Your task to perform on an android device: Go to internet settings Image 0: 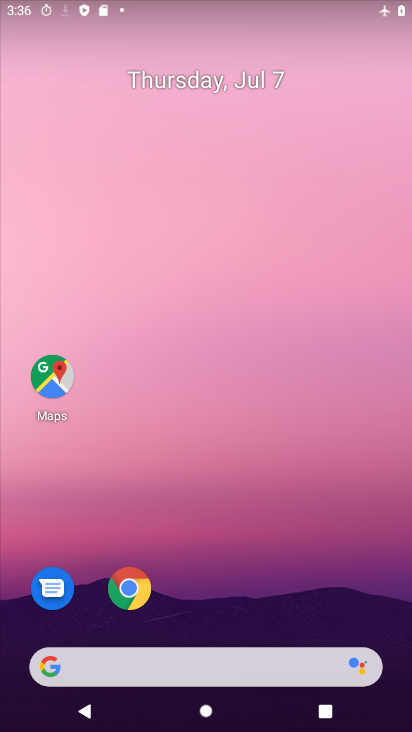
Step 0: drag from (260, 714) to (217, 118)
Your task to perform on an android device: Go to internet settings Image 1: 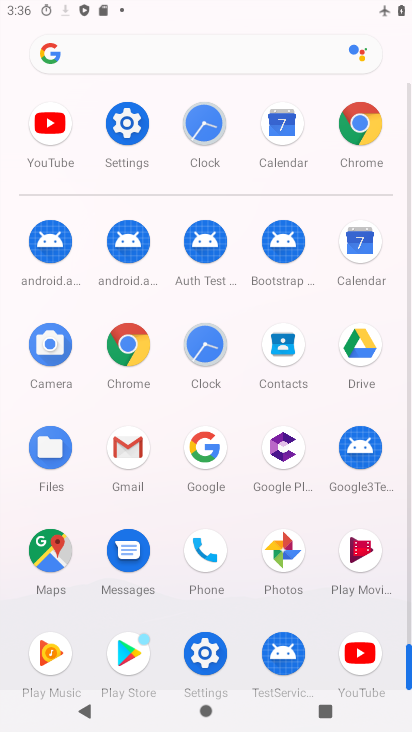
Step 1: click (145, 144)
Your task to perform on an android device: Go to internet settings Image 2: 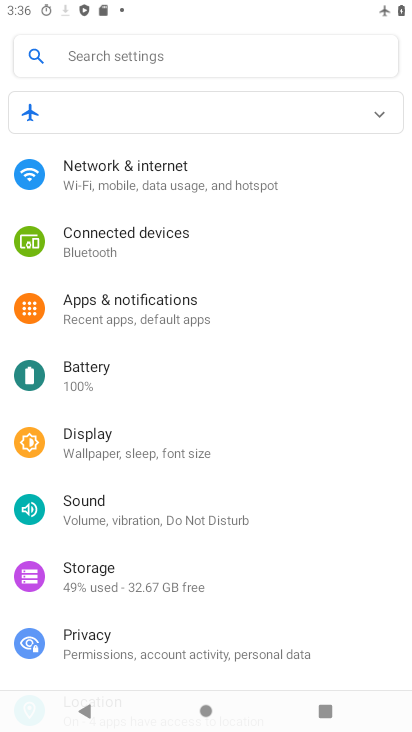
Step 2: click (148, 175)
Your task to perform on an android device: Go to internet settings Image 3: 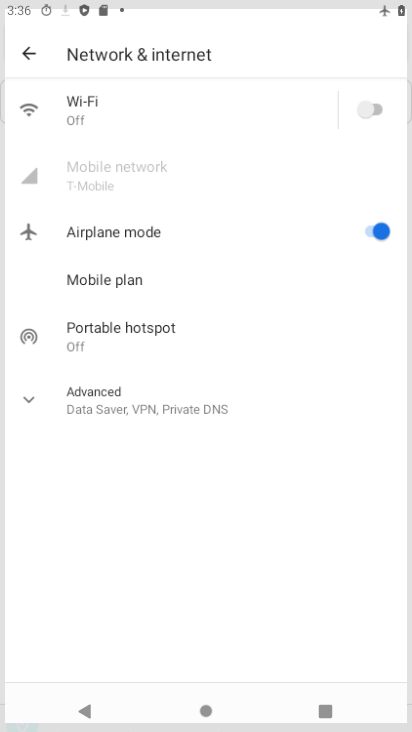
Step 3: click (148, 175)
Your task to perform on an android device: Go to internet settings Image 4: 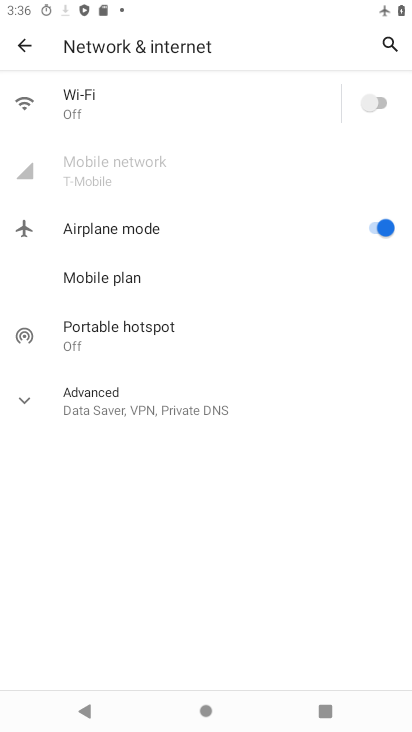
Step 4: click (148, 175)
Your task to perform on an android device: Go to internet settings Image 5: 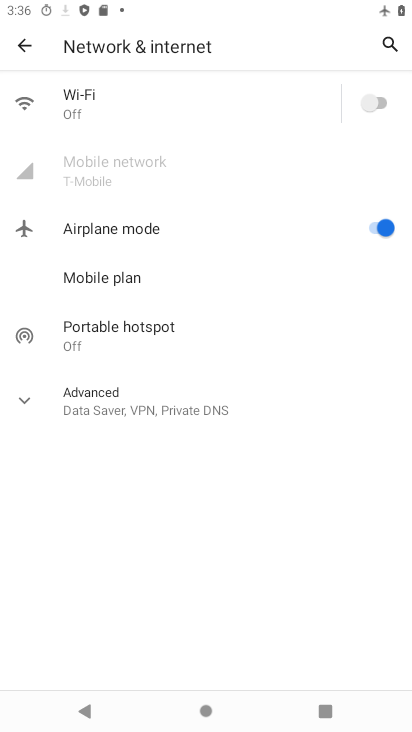
Step 5: click (155, 180)
Your task to perform on an android device: Go to internet settings Image 6: 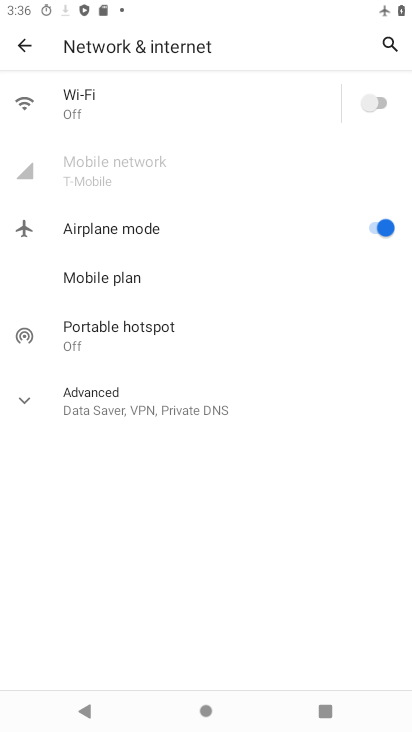
Step 6: task complete